Your task to perform on an android device: open chrome privacy settings Image 0: 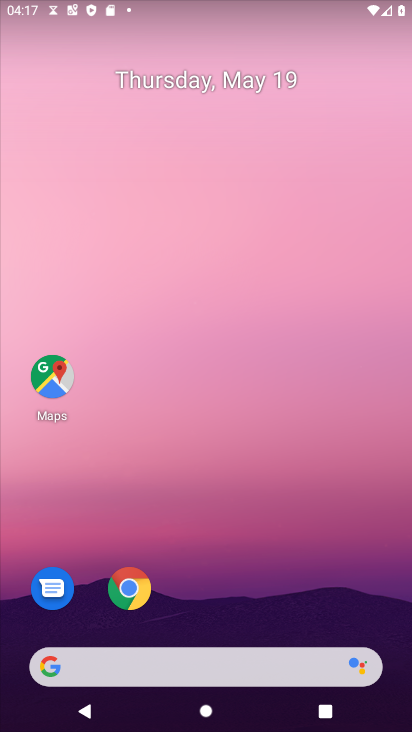
Step 0: click (134, 598)
Your task to perform on an android device: open chrome privacy settings Image 1: 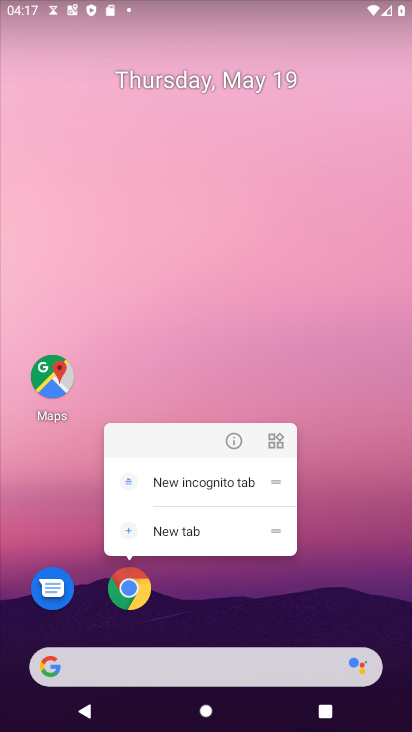
Step 1: click (137, 580)
Your task to perform on an android device: open chrome privacy settings Image 2: 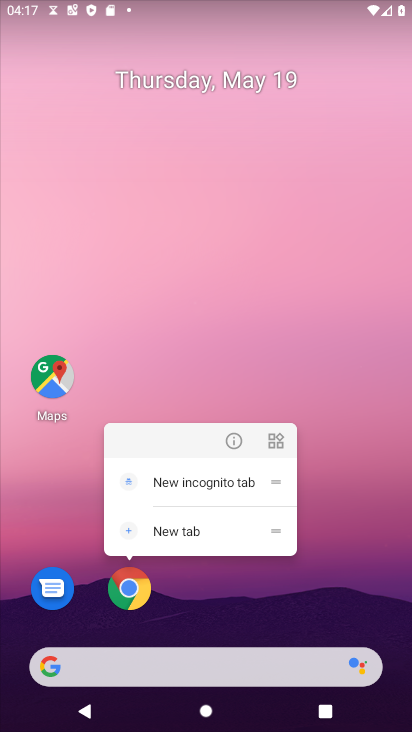
Step 2: click (131, 591)
Your task to perform on an android device: open chrome privacy settings Image 3: 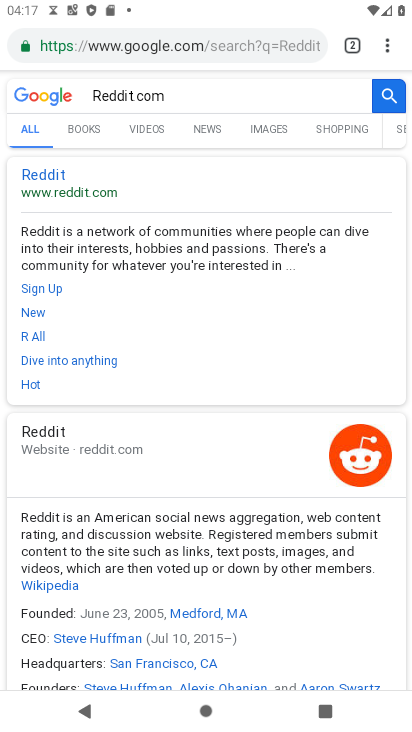
Step 3: click (395, 46)
Your task to perform on an android device: open chrome privacy settings Image 4: 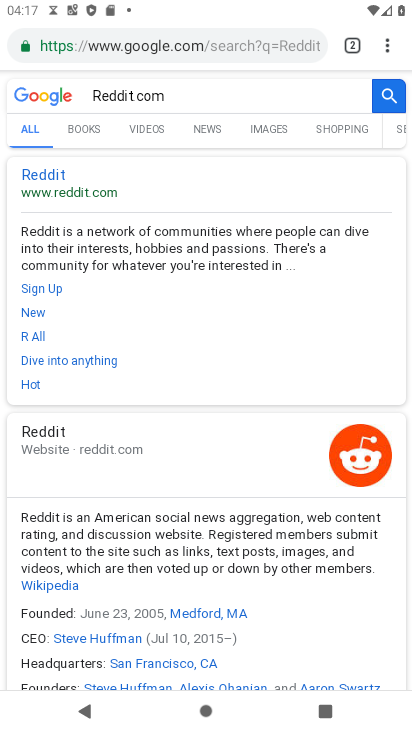
Step 4: click (391, 43)
Your task to perform on an android device: open chrome privacy settings Image 5: 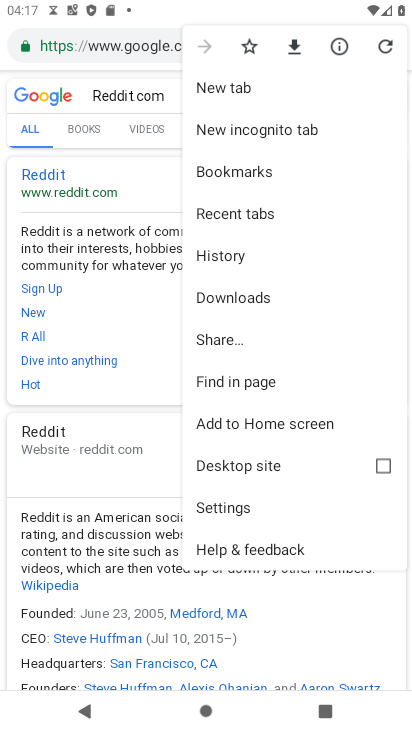
Step 5: click (236, 511)
Your task to perform on an android device: open chrome privacy settings Image 6: 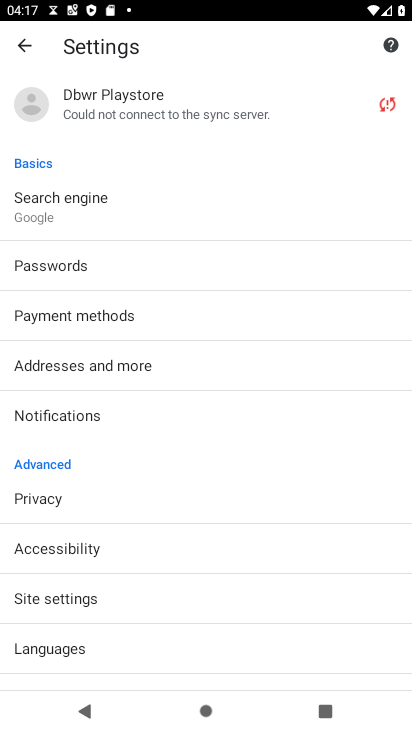
Step 6: click (63, 498)
Your task to perform on an android device: open chrome privacy settings Image 7: 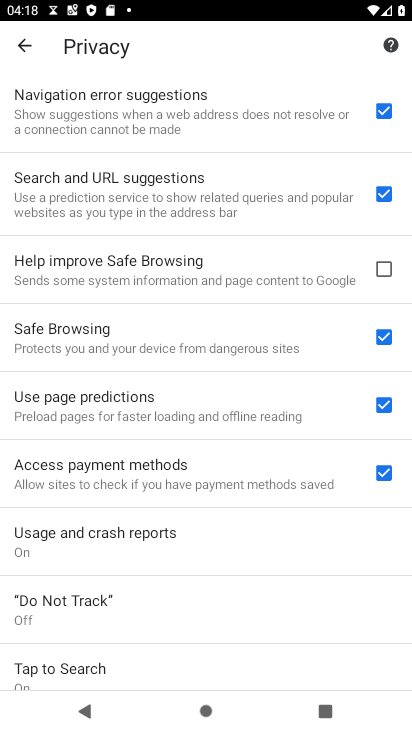
Step 7: task complete